Your task to perform on an android device: turn on translation in the chrome app Image 0: 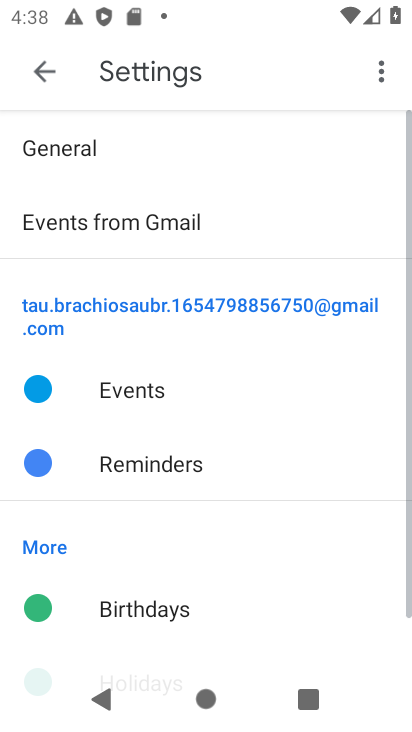
Step 0: drag from (238, 433) to (238, 186)
Your task to perform on an android device: turn on translation in the chrome app Image 1: 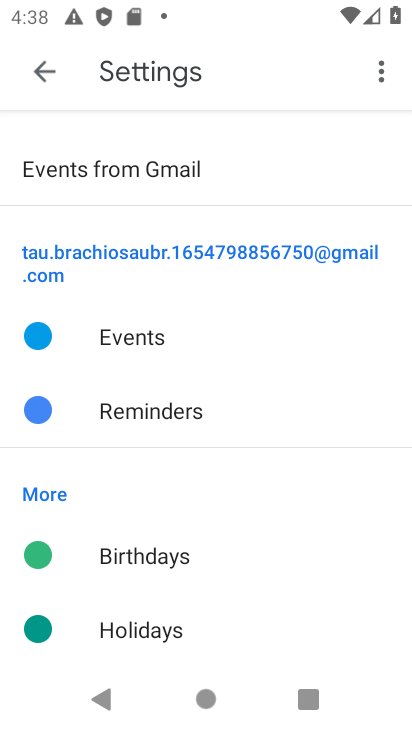
Step 1: press home button
Your task to perform on an android device: turn on translation in the chrome app Image 2: 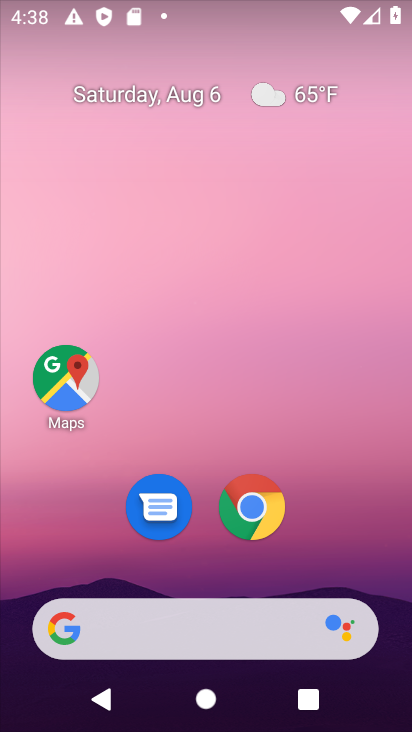
Step 2: drag from (223, 449) to (258, 233)
Your task to perform on an android device: turn on translation in the chrome app Image 3: 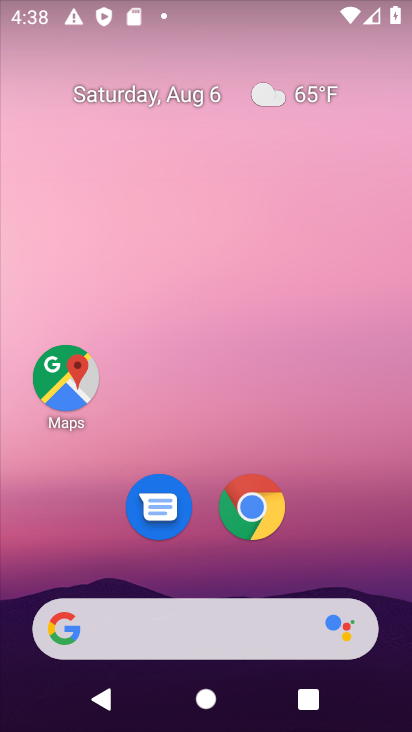
Step 3: drag from (209, 455) to (232, 176)
Your task to perform on an android device: turn on translation in the chrome app Image 4: 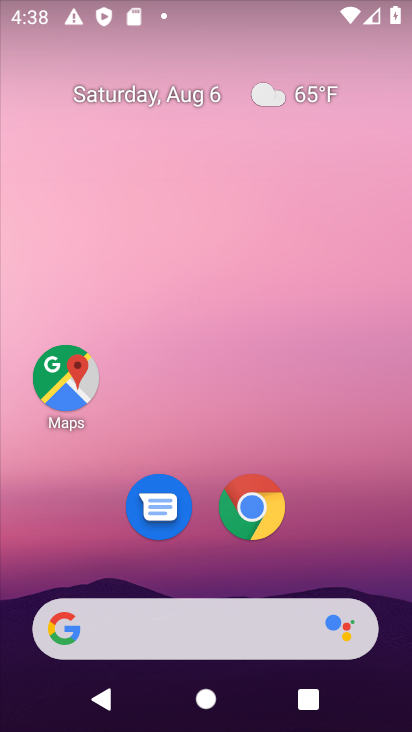
Step 4: drag from (225, 432) to (280, 79)
Your task to perform on an android device: turn on translation in the chrome app Image 5: 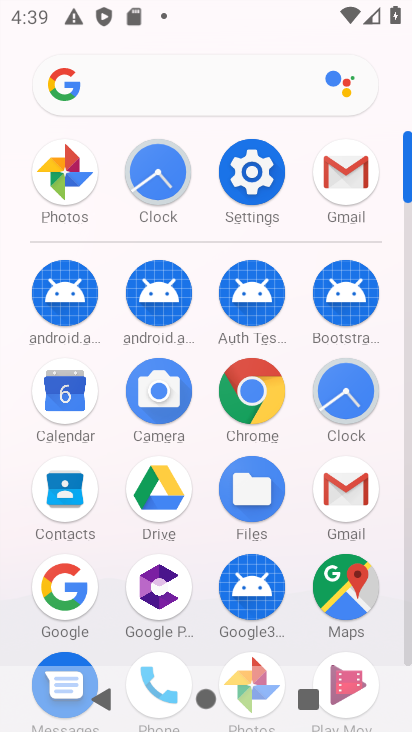
Step 5: press home button
Your task to perform on an android device: turn on translation in the chrome app Image 6: 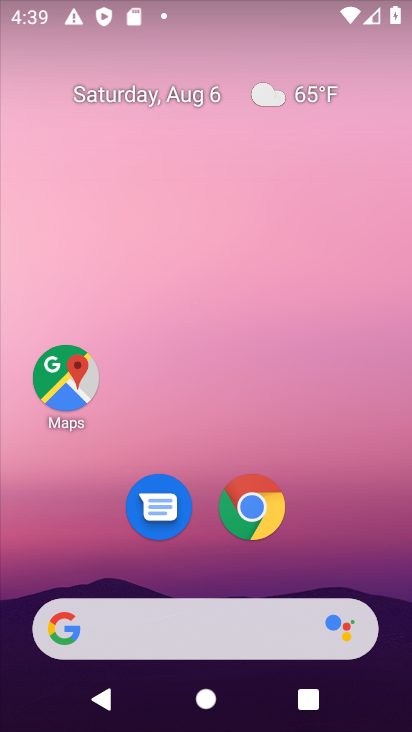
Step 6: drag from (239, 411) to (296, 170)
Your task to perform on an android device: turn on translation in the chrome app Image 7: 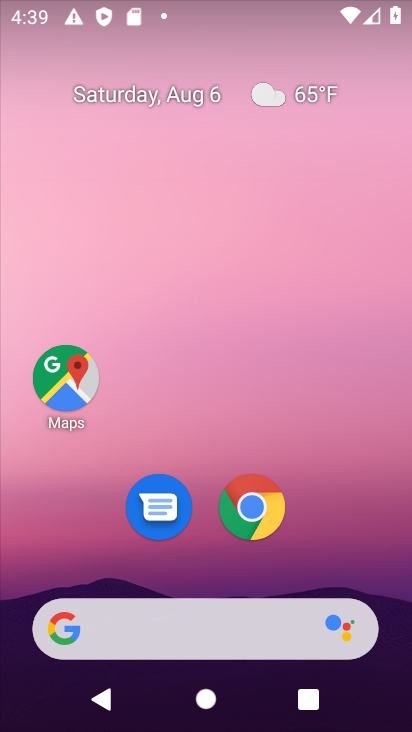
Step 7: drag from (180, 448) to (197, 35)
Your task to perform on an android device: turn on translation in the chrome app Image 8: 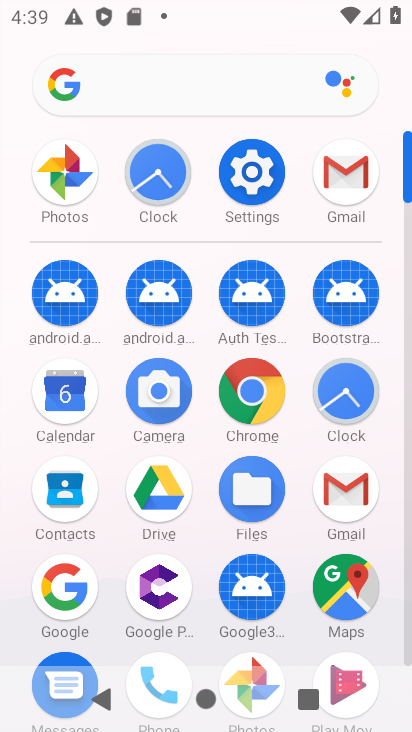
Step 8: click (346, 179)
Your task to perform on an android device: turn on translation in the chrome app Image 9: 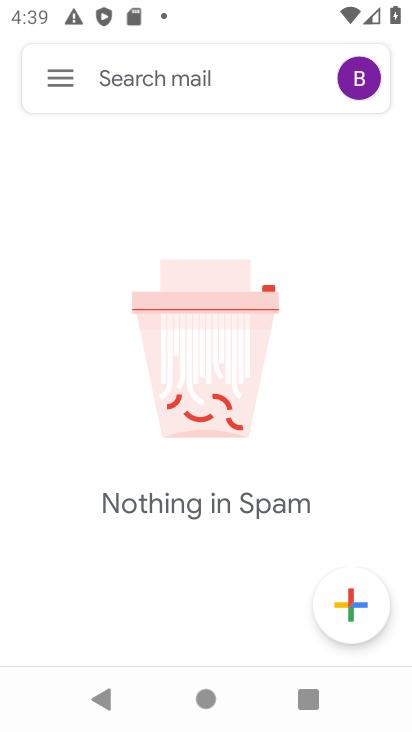
Step 9: task complete